Your task to perform on an android device: What is the news today? Image 0: 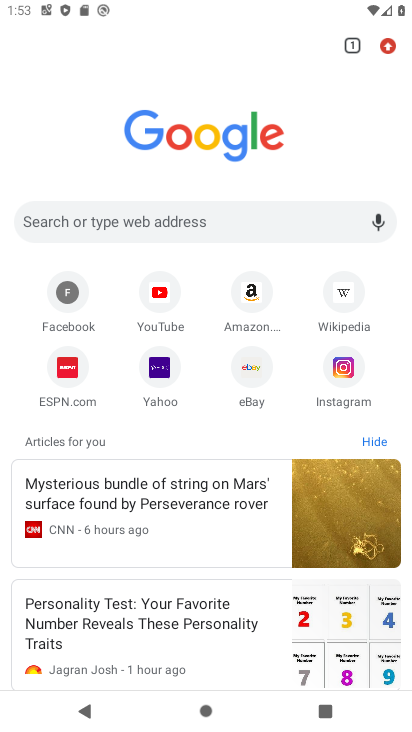
Step 0: press home button
Your task to perform on an android device: What is the news today? Image 1: 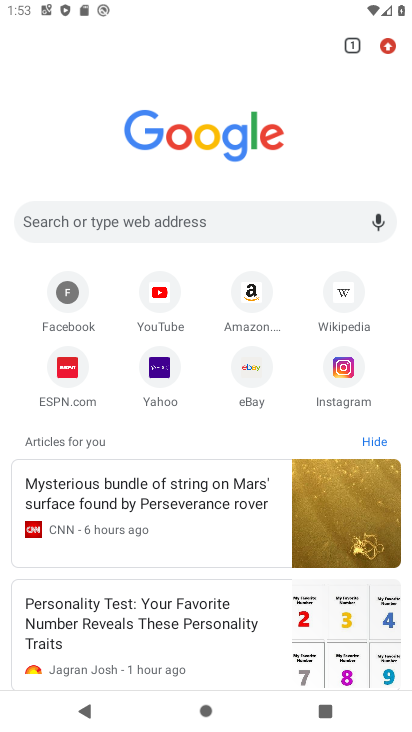
Step 1: drag from (204, 605) to (237, 304)
Your task to perform on an android device: What is the news today? Image 2: 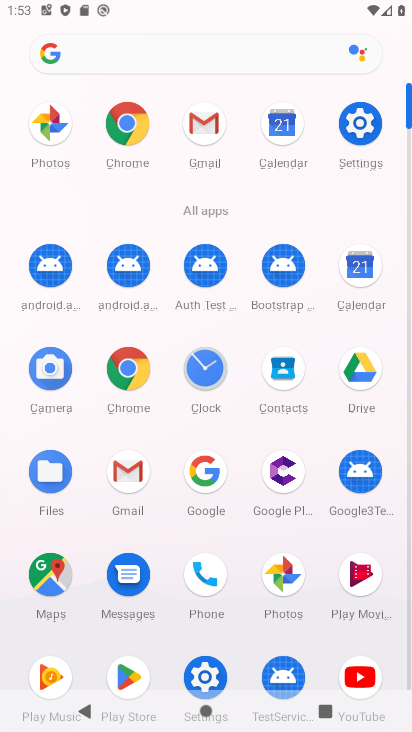
Step 2: click (154, 53)
Your task to perform on an android device: What is the news today? Image 3: 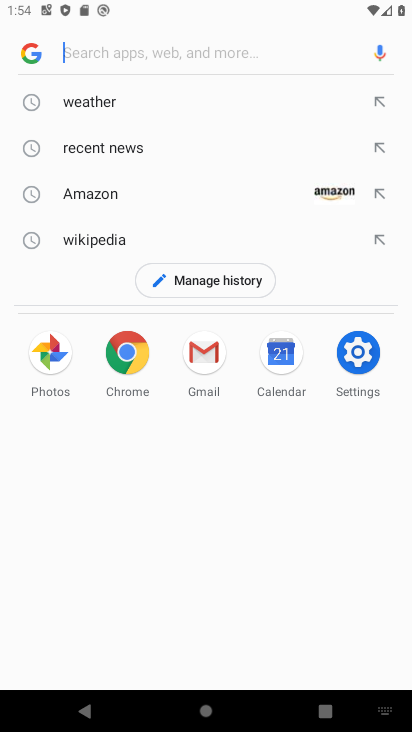
Step 3: type "news today?"
Your task to perform on an android device: What is the news today? Image 4: 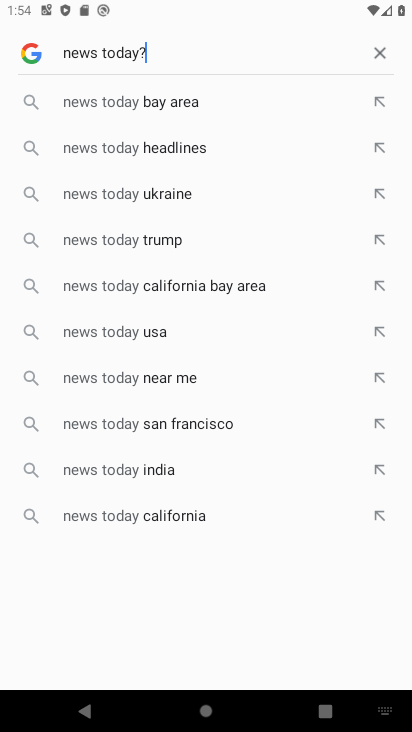
Step 4: click (125, 489)
Your task to perform on an android device: What is the news today? Image 5: 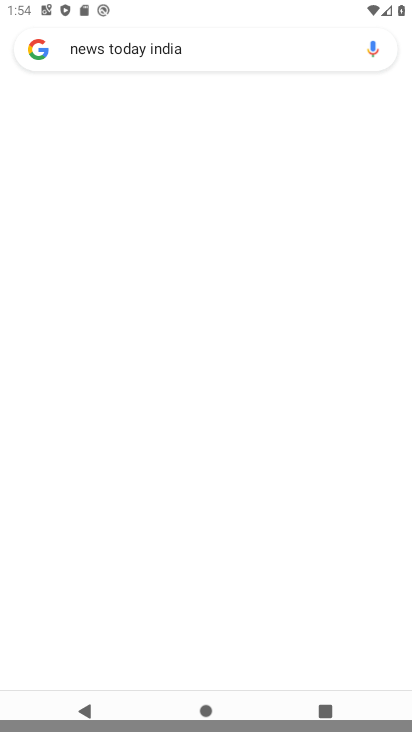
Step 5: drag from (237, 518) to (277, 239)
Your task to perform on an android device: What is the news today? Image 6: 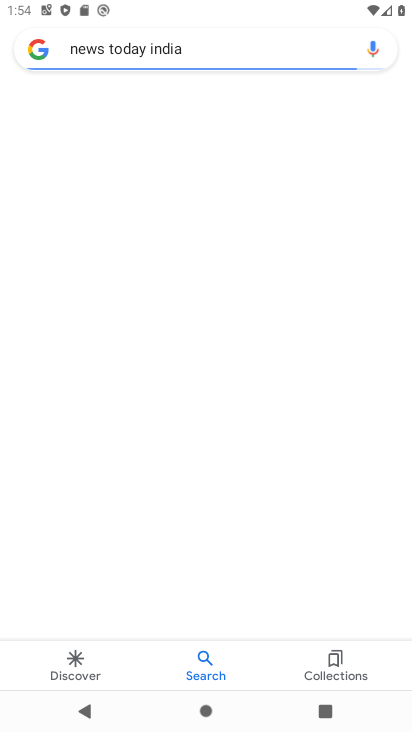
Step 6: drag from (222, 450) to (222, 265)
Your task to perform on an android device: What is the news today? Image 7: 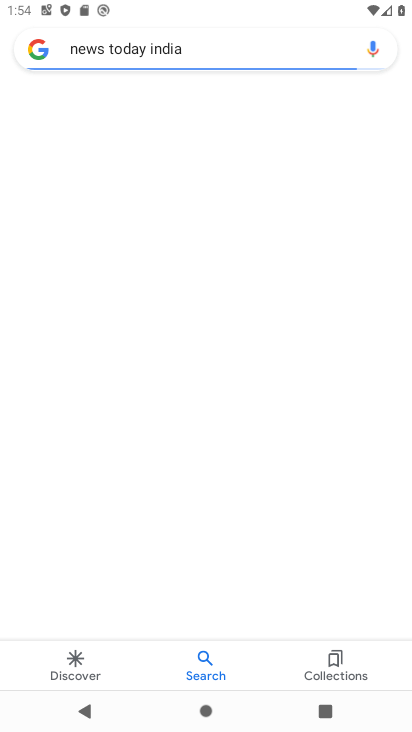
Step 7: drag from (245, 539) to (258, 246)
Your task to perform on an android device: What is the news today? Image 8: 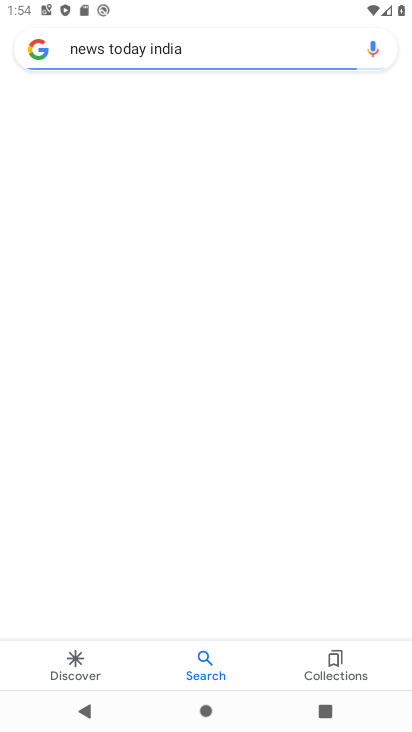
Step 8: drag from (204, 266) to (265, 446)
Your task to perform on an android device: What is the news today? Image 9: 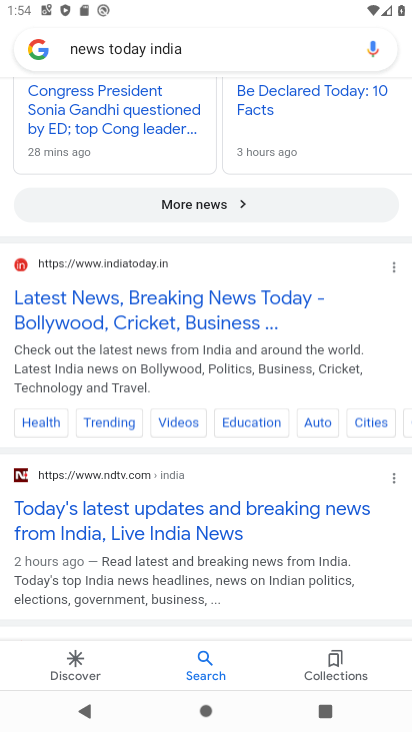
Step 9: drag from (190, 236) to (392, 530)
Your task to perform on an android device: What is the news today? Image 10: 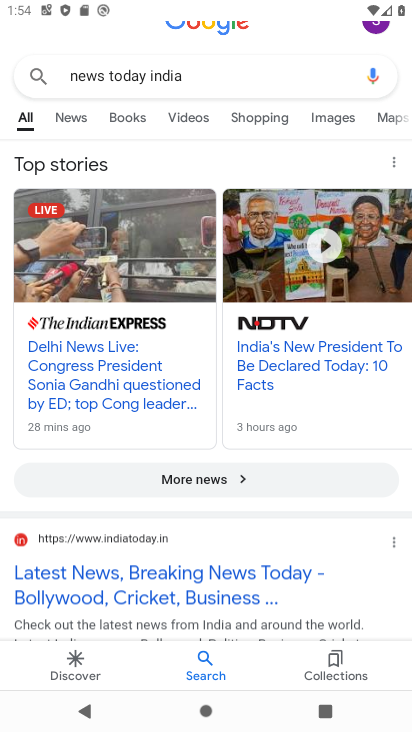
Step 10: drag from (190, 532) to (241, 317)
Your task to perform on an android device: What is the news today? Image 11: 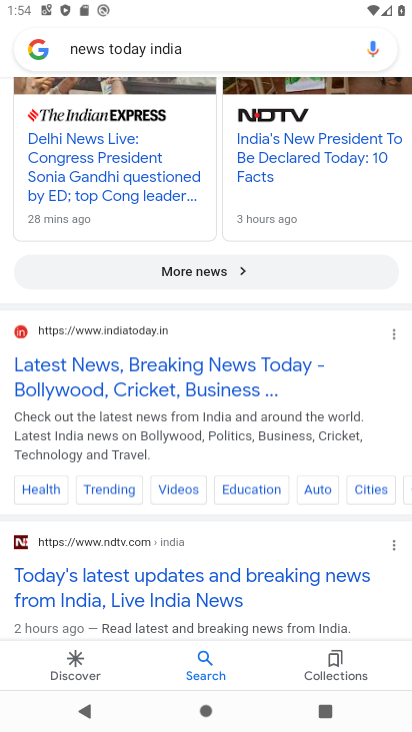
Step 11: click (156, 362)
Your task to perform on an android device: What is the news today? Image 12: 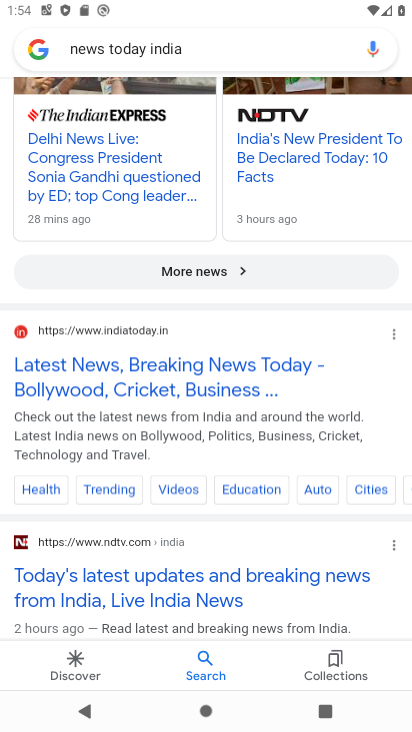
Step 12: task complete